Your task to perform on an android device: Open the Play Movies app and select the watchlist tab. Image 0: 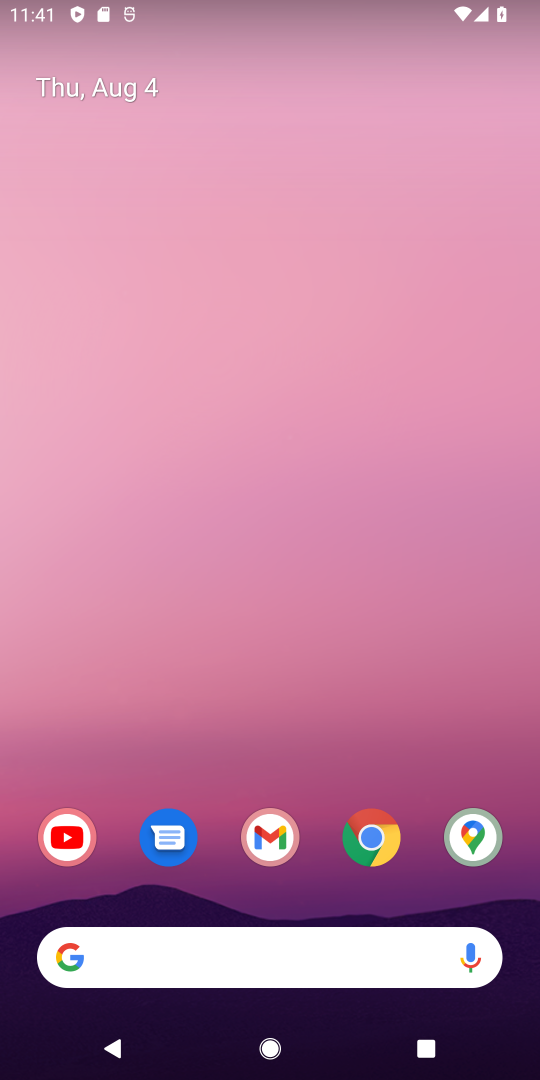
Step 0: drag from (282, 887) to (203, 347)
Your task to perform on an android device: Open the Play Movies app and select the watchlist tab. Image 1: 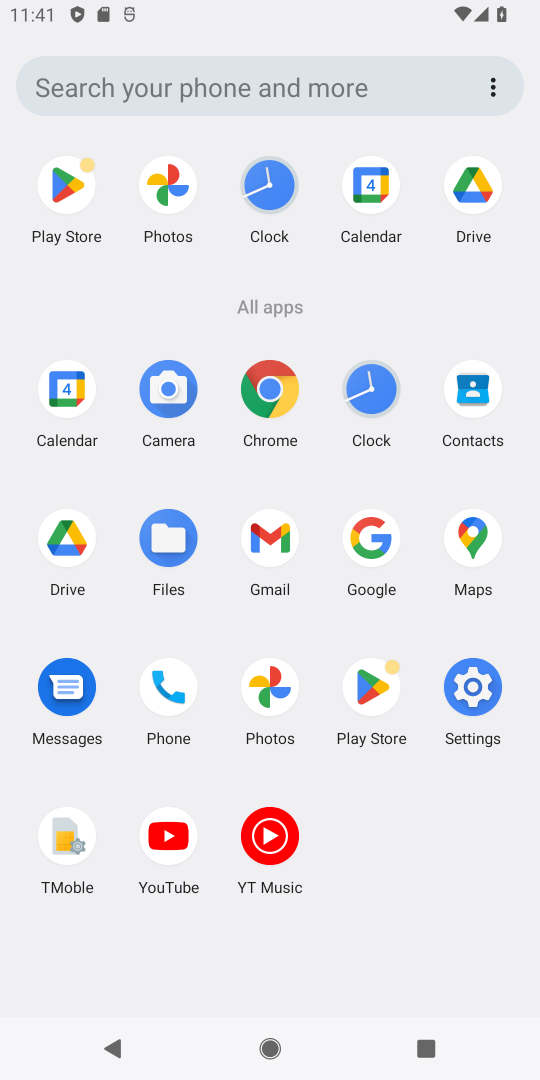
Step 1: task complete